Your task to perform on an android device: toggle notifications settings in the gmail app Image 0: 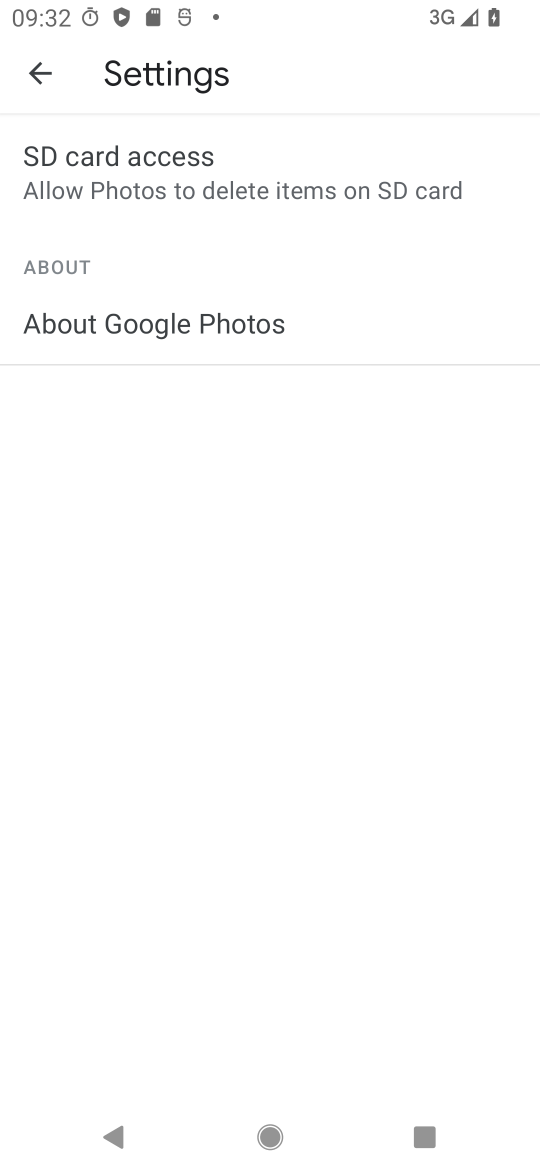
Step 0: press home button
Your task to perform on an android device: toggle notifications settings in the gmail app Image 1: 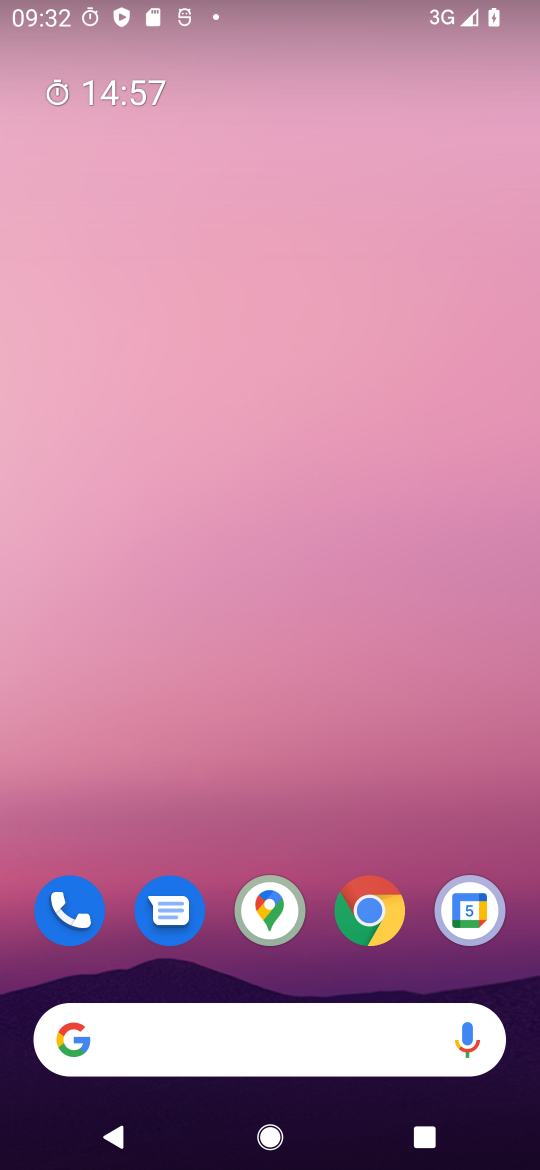
Step 1: drag from (320, 1074) to (304, 75)
Your task to perform on an android device: toggle notifications settings in the gmail app Image 2: 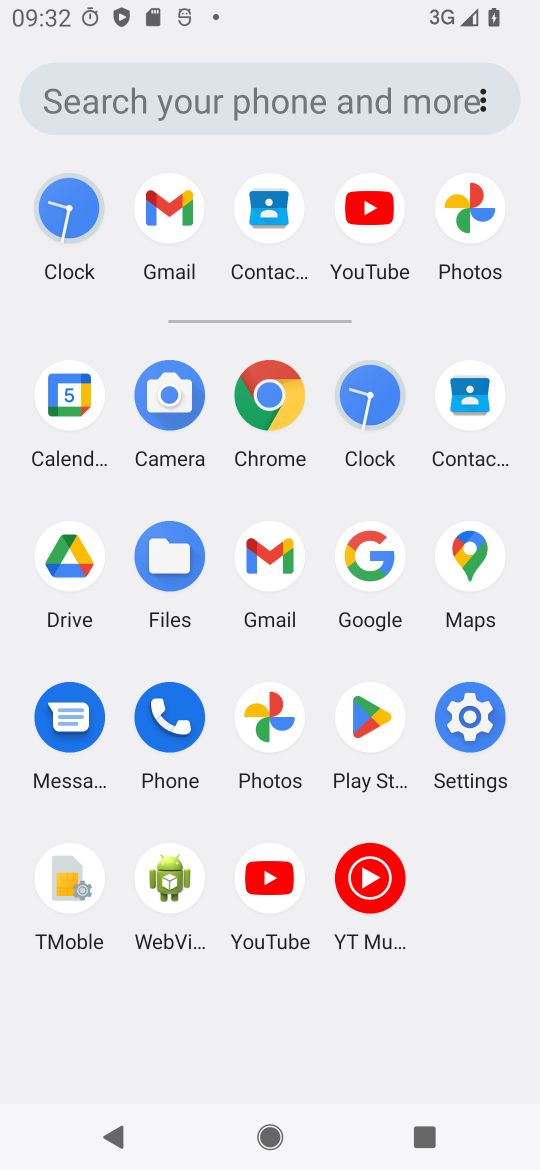
Step 2: click (268, 560)
Your task to perform on an android device: toggle notifications settings in the gmail app Image 3: 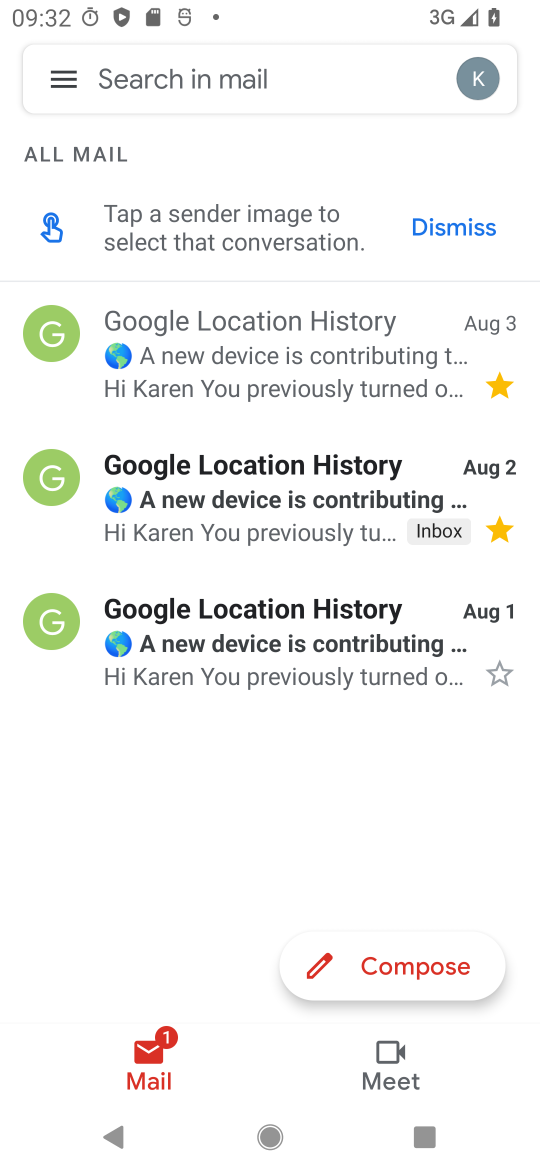
Step 3: click (54, 69)
Your task to perform on an android device: toggle notifications settings in the gmail app Image 4: 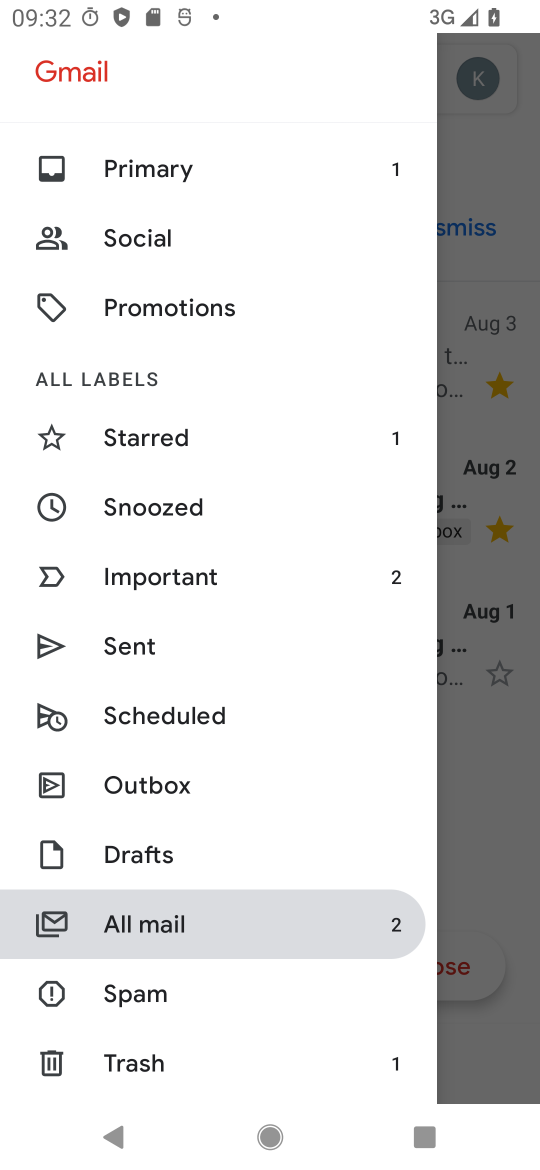
Step 4: drag from (281, 1044) to (282, 452)
Your task to perform on an android device: toggle notifications settings in the gmail app Image 5: 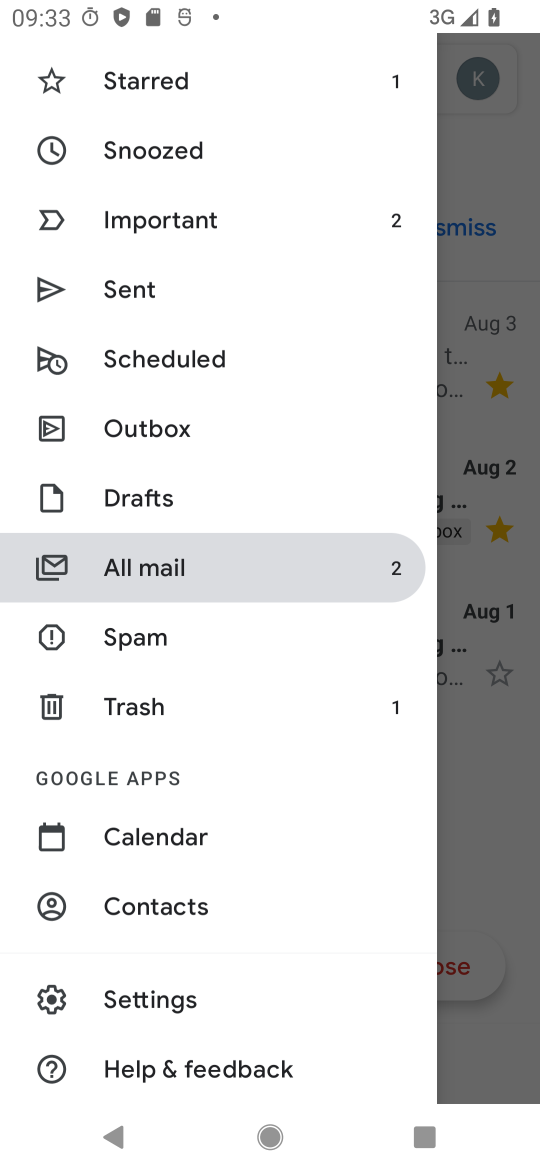
Step 5: click (198, 996)
Your task to perform on an android device: toggle notifications settings in the gmail app Image 6: 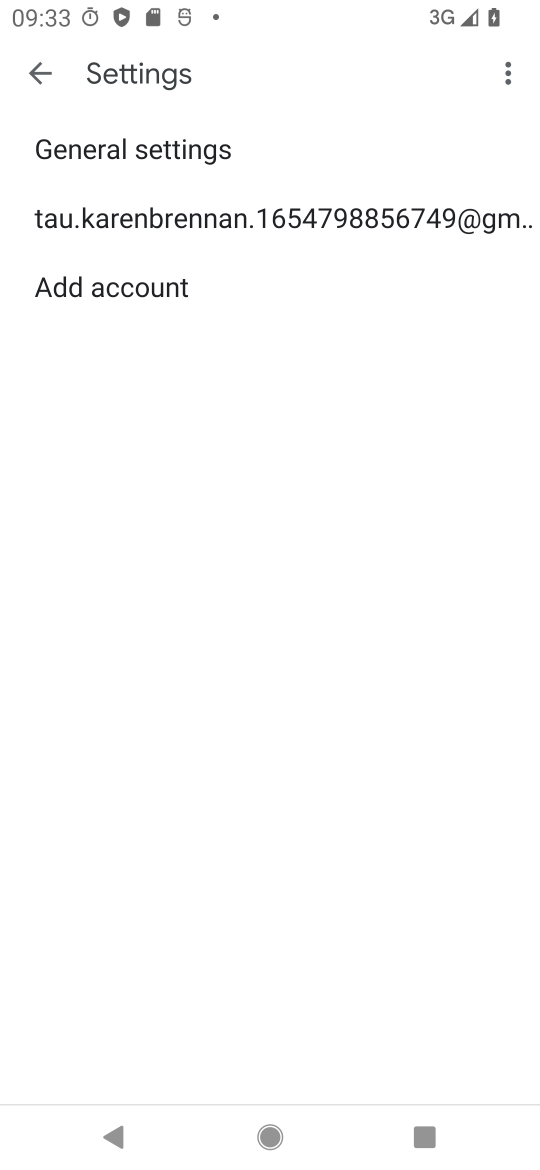
Step 6: click (239, 201)
Your task to perform on an android device: toggle notifications settings in the gmail app Image 7: 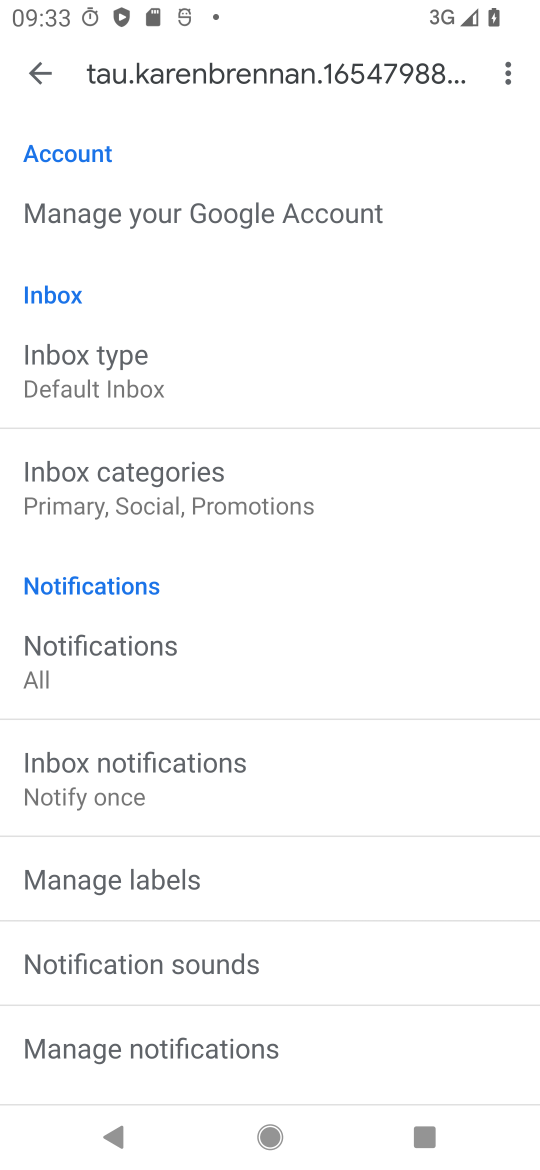
Step 7: drag from (181, 1030) to (222, 601)
Your task to perform on an android device: toggle notifications settings in the gmail app Image 8: 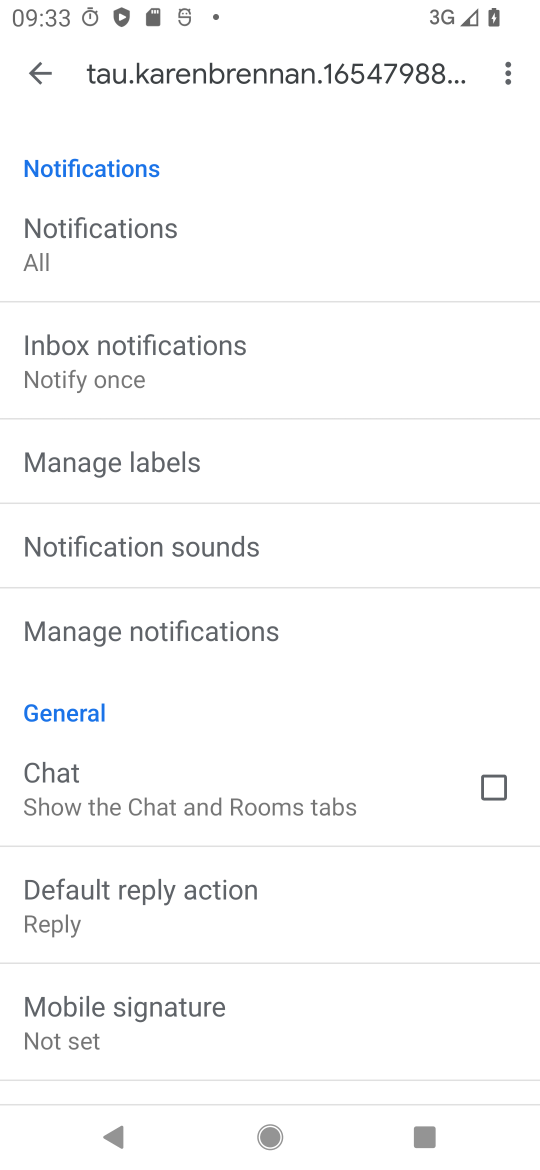
Step 8: click (202, 617)
Your task to perform on an android device: toggle notifications settings in the gmail app Image 9: 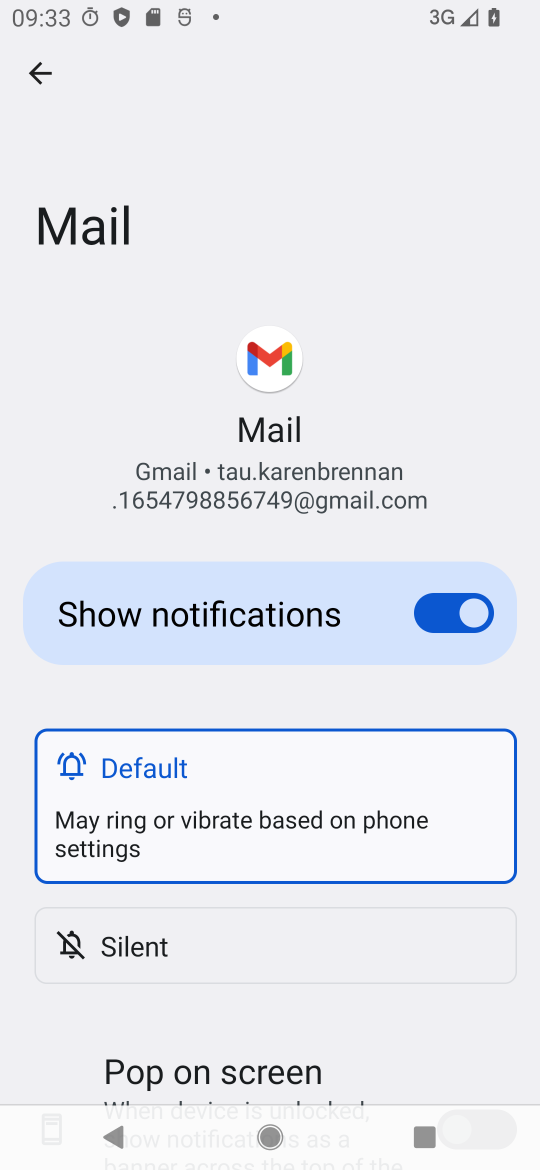
Step 9: click (459, 612)
Your task to perform on an android device: toggle notifications settings in the gmail app Image 10: 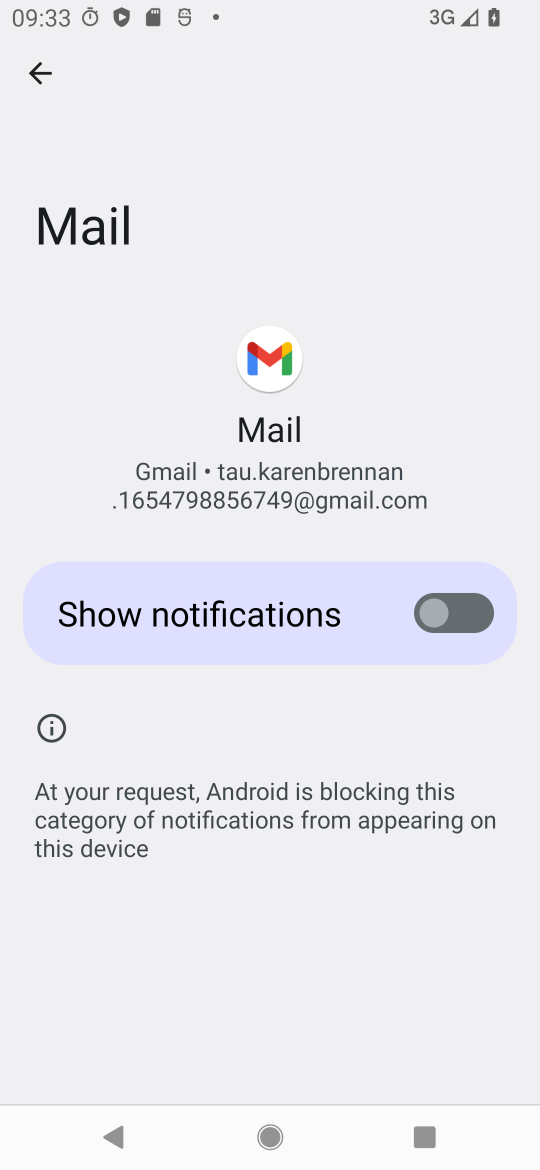
Step 10: task complete